Your task to perform on an android device: turn off location history Image 0: 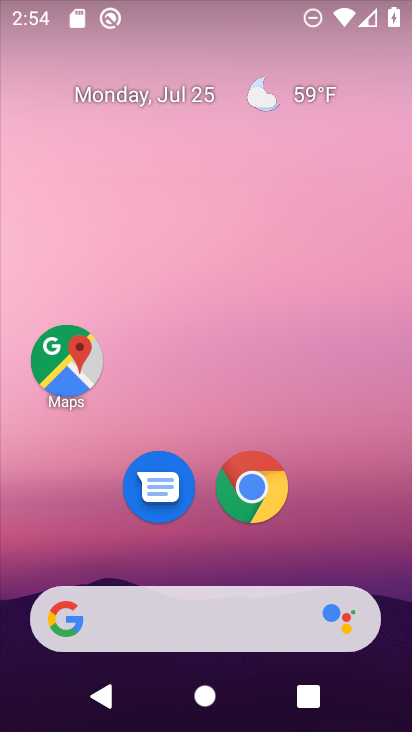
Step 0: drag from (116, 571) to (270, 21)
Your task to perform on an android device: turn off location history Image 1: 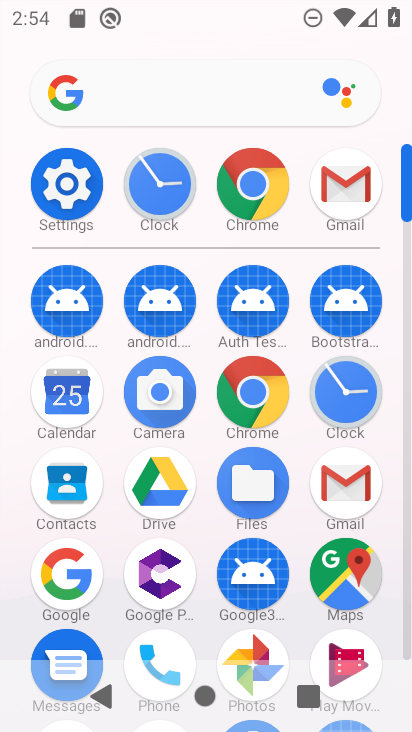
Step 1: click (76, 194)
Your task to perform on an android device: turn off location history Image 2: 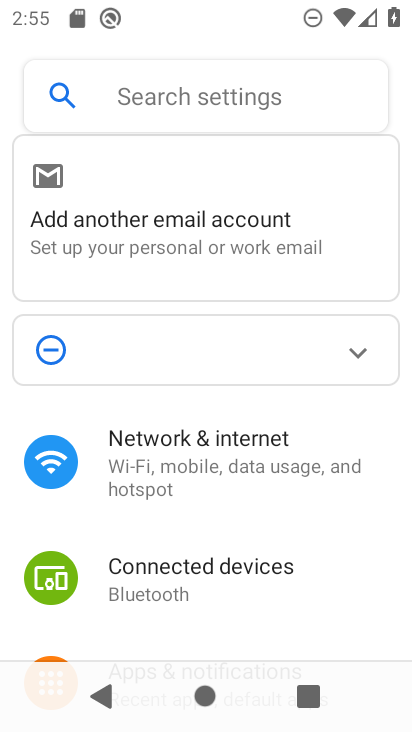
Step 2: drag from (190, 607) to (374, 39)
Your task to perform on an android device: turn off location history Image 3: 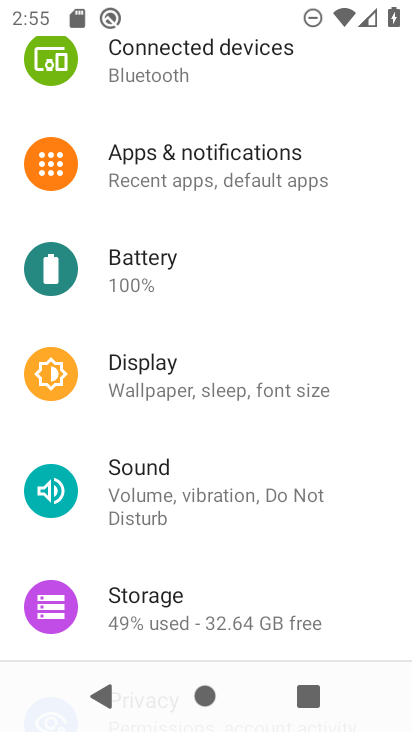
Step 3: drag from (213, 549) to (243, 670)
Your task to perform on an android device: turn off location history Image 4: 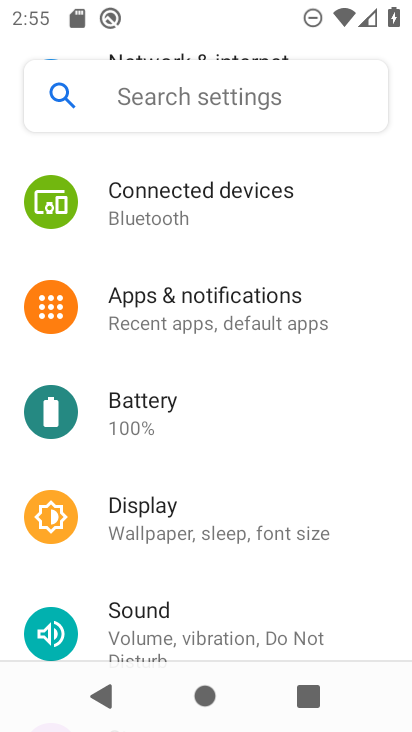
Step 4: drag from (236, 254) to (239, 688)
Your task to perform on an android device: turn off location history Image 5: 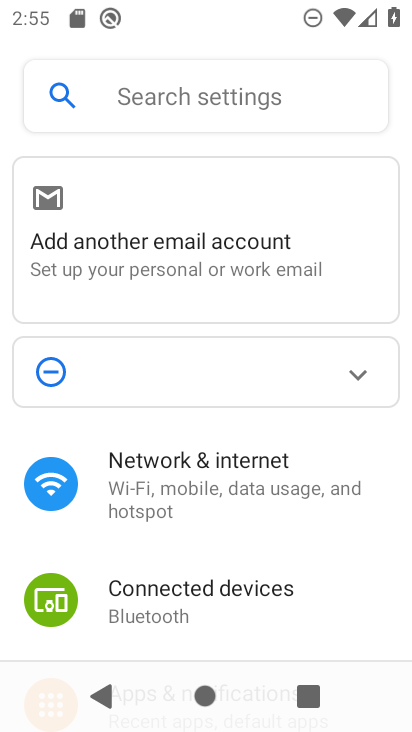
Step 5: drag from (228, 609) to (371, 2)
Your task to perform on an android device: turn off location history Image 6: 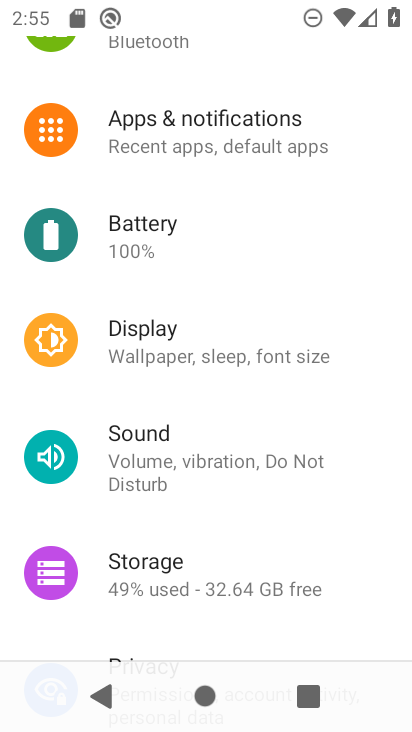
Step 6: drag from (287, 275) to (315, 11)
Your task to perform on an android device: turn off location history Image 7: 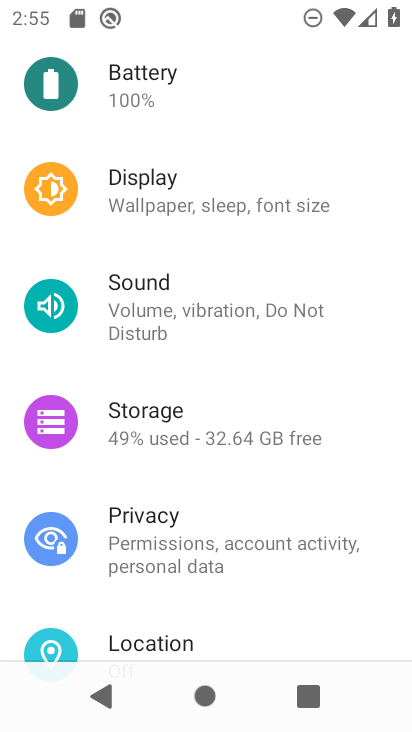
Step 7: drag from (203, 595) to (321, 45)
Your task to perform on an android device: turn off location history Image 8: 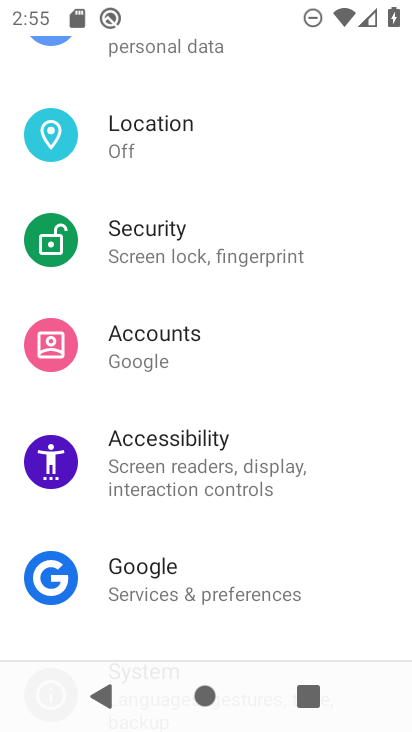
Step 8: click (190, 127)
Your task to perform on an android device: turn off location history Image 9: 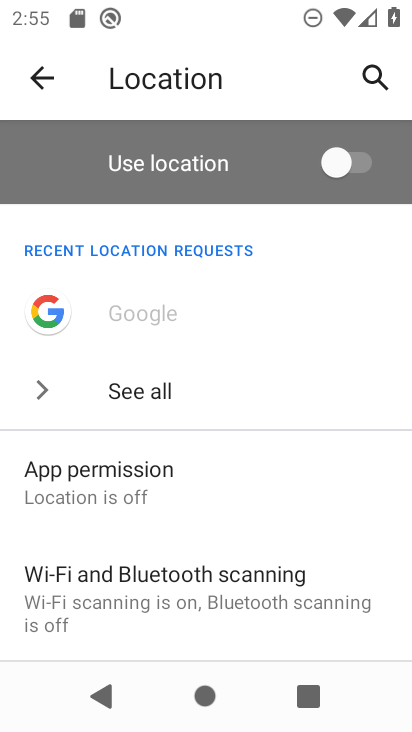
Step 9: drag from (202, 563) to (26, 7)
Your task to perform on an android device: turn off location history Image 10: 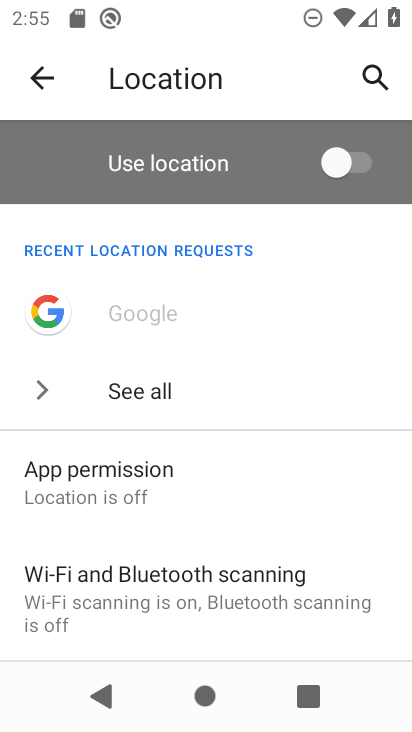
Step 10: drag from (236, 528) to (306, 181)
Your task to perform on an android device: turn off location history Image 11: 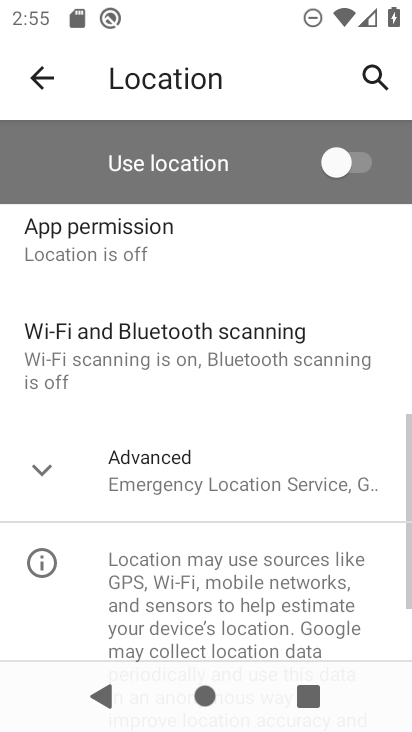
Step 11: drag from (194, 322) to (221, 298)
Your task to perform on an android device: turn off location history Image 12: 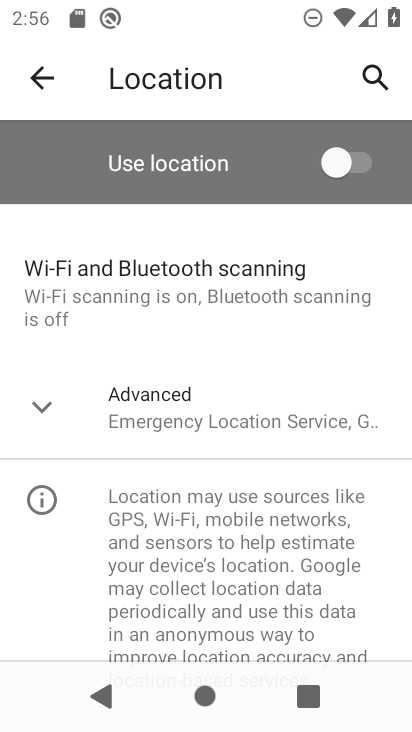
Step 12: click (186, 403)
Your task to perform on an android device: turn off location history Image 13: 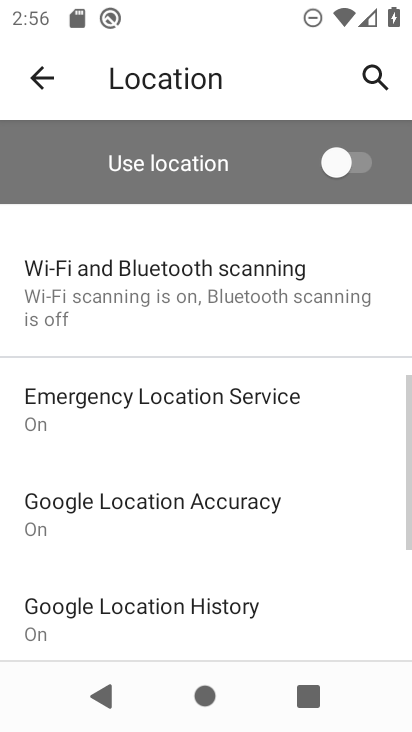
Step 13: click (198, 622)
Your task to perform on an android device: turn off location history Image 14: 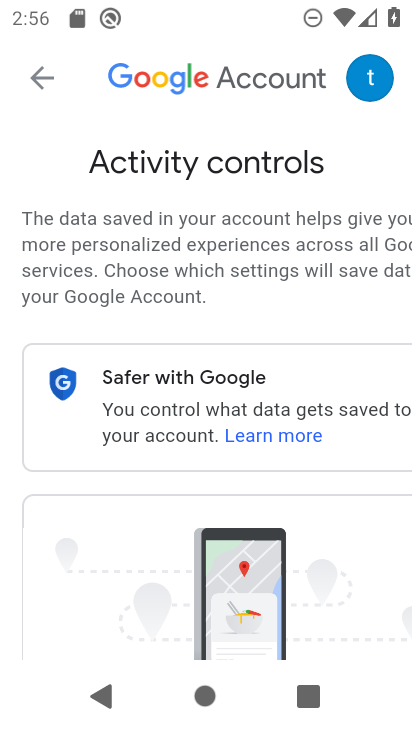
Step 14: drag from (158, 592) to (228, 247)
Your task to perform on an android device: turn off location history Image 15: 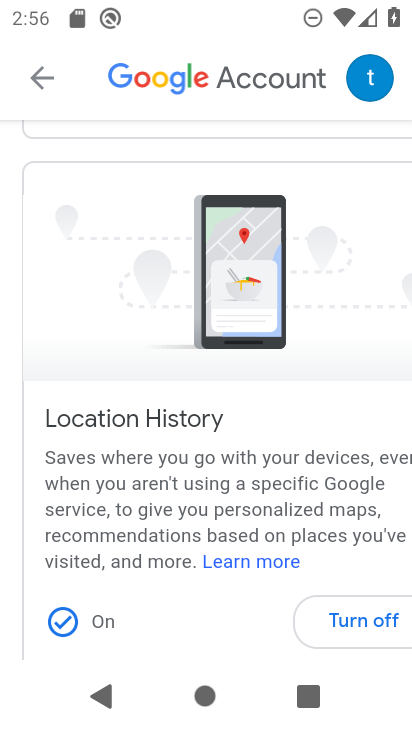
Step 15: click (359, 612)
Your task to perform on an android device: turn off location history Image 16: 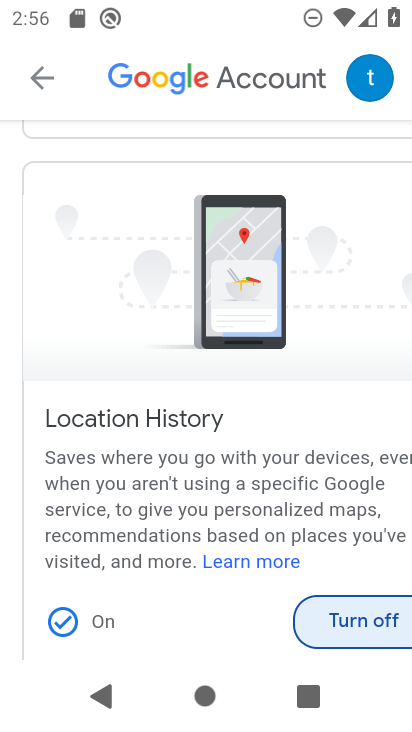
Step 16: click (355, 620)
Your task to perform on an android device: turn off location history Image 17: 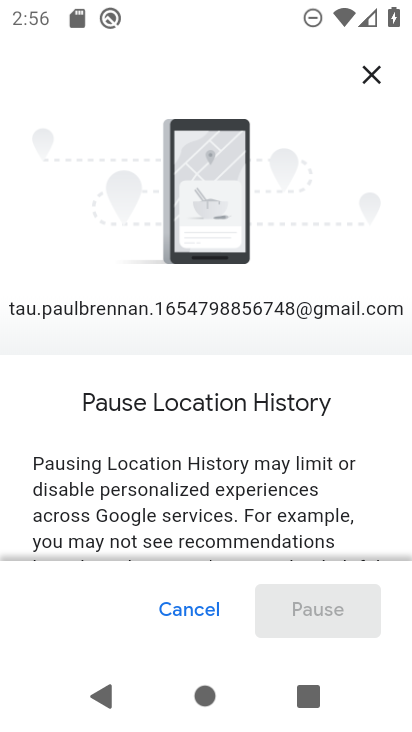
Step 17: click (186, 608)
Your task to perform on an android device: turn off location history Image 18: 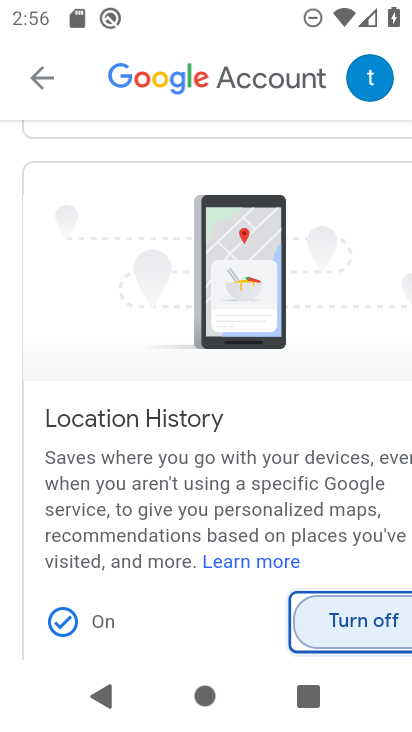
Step 18: task complete